Your task to perform on an android device: refresh tabs in the chrome app Image 0: 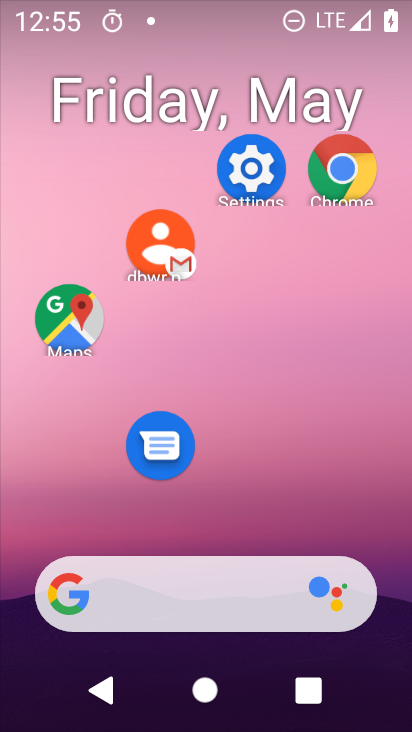
Step 0: drag from (213, 488) to (206, 110)
Your task to perform on an android device: refresh tabs in the chrome app Image 1: 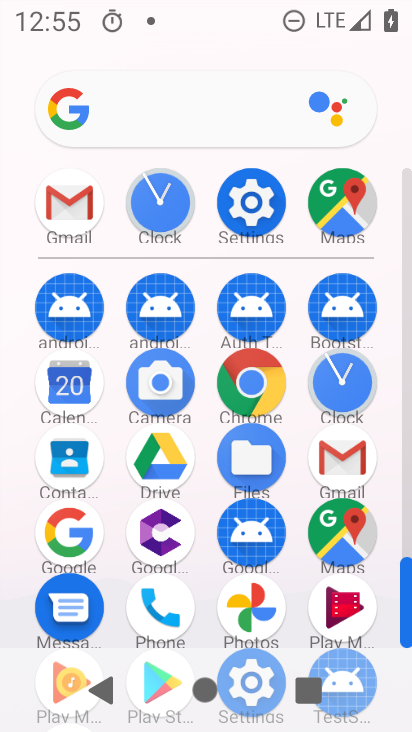
Step 1: click (240, 375)
Your task to perform on an android device: refresh tabs in the chrome app Image 2: 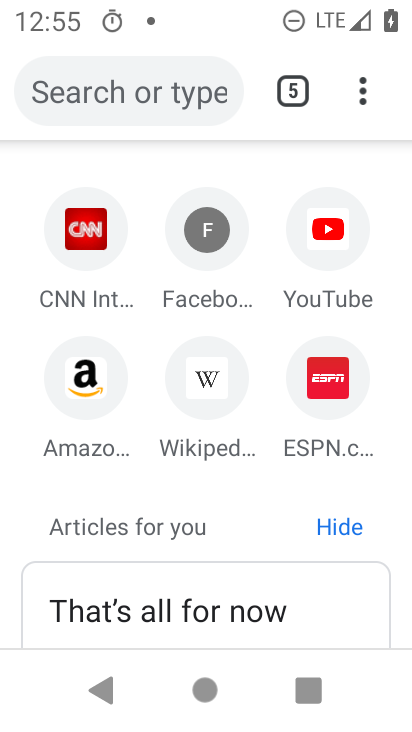
Step 2: click (368, 97)
Your task to perform on an android device: refresh tabs in the chrome app Image 3: 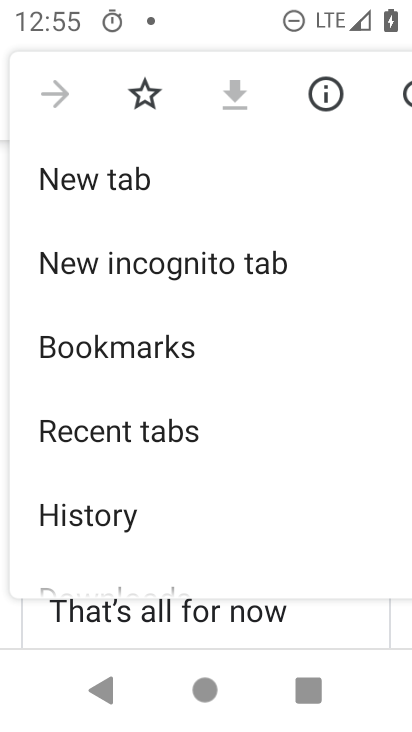
Step 3: click (401, 89)
Your task to perform on an android device: refresh tabs in the chrome app Image 4: 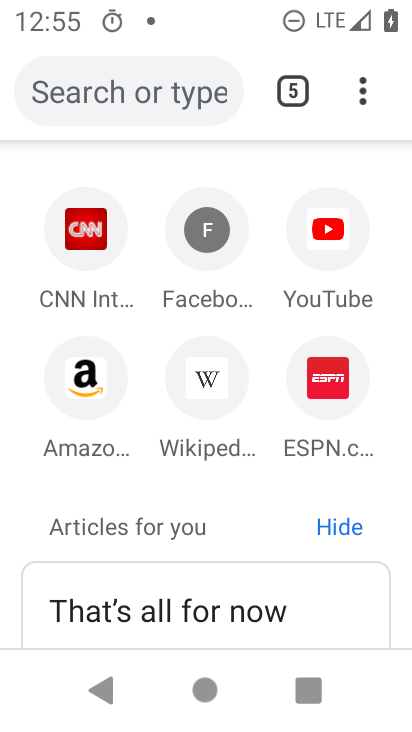
Step 4: task complete